Your task to perform on an android device: toggle improve location accuracy Image 0: 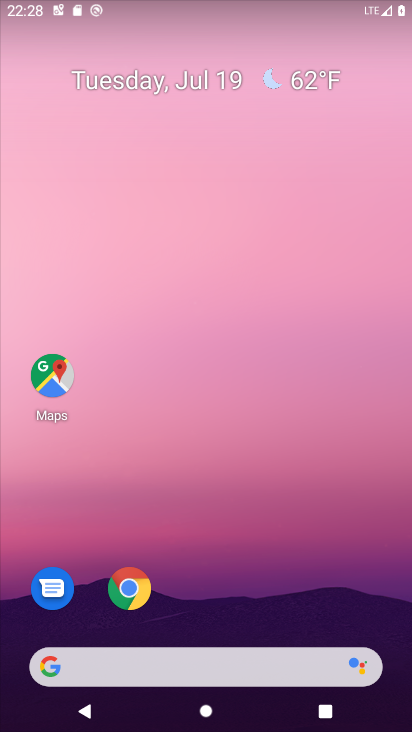
Step 0: drag from (175, 575) to (202, 35)
Your task to perform on an android device: toggle improve location accuracy Image 1: 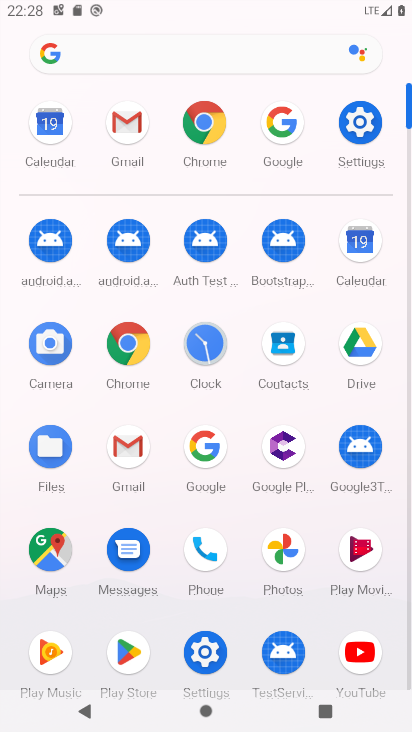
Step 1: click (369, 148)
Your task to perform on an android device: toggle improve location accuracy Image 2: 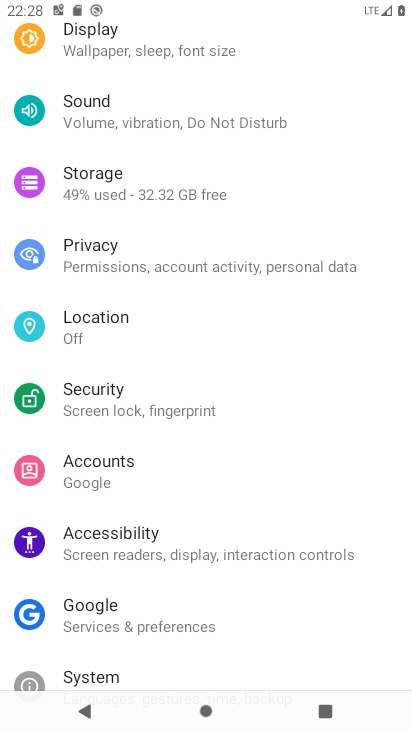
Step 2: click (123, 347)
Your task to perform on an android device: toggle improve location accuracy Image 3: 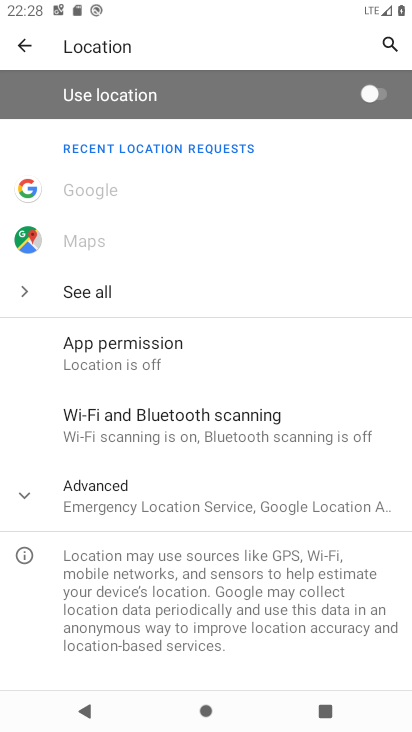
Step 3: click (151, 494)
Your task to perform on an android device: toggle improve location accuracy Image 4: 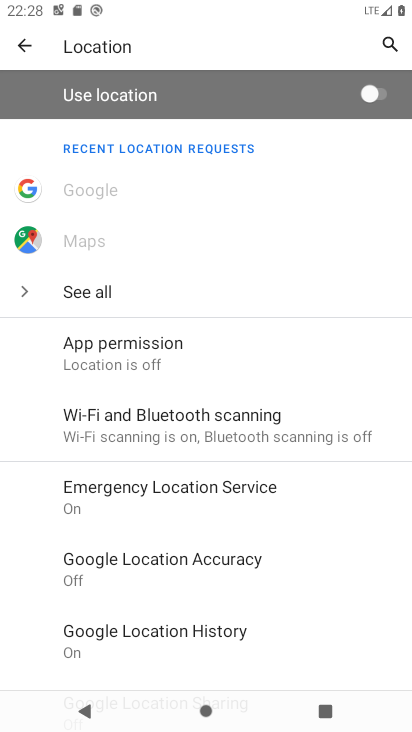
Step 4: click (133, 559)
Your task to perform on an android device: toggle improve location accuracy Image 5: 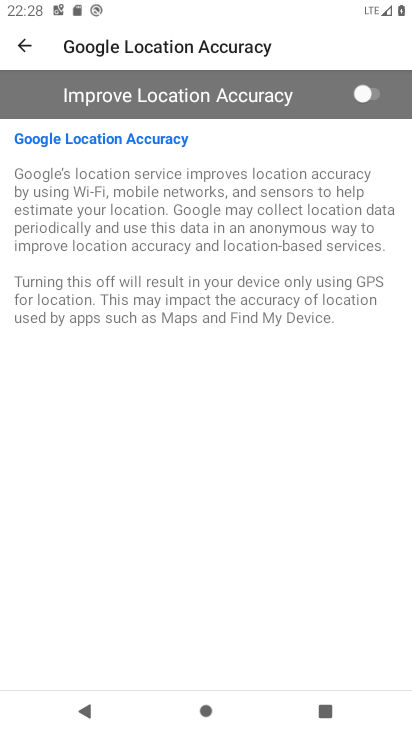
Step 5: click (376, 96)
Your task to perform on an android device: toggle improve location accuracy Image 6: 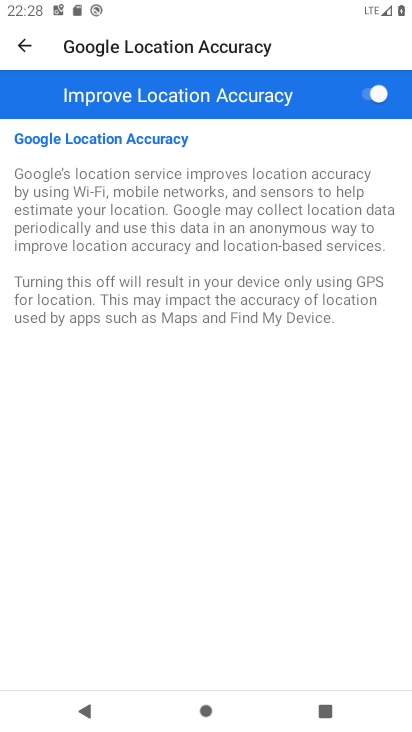
Step 6: task complete